Your task to perform on an android device: Go to location settings Image 0: 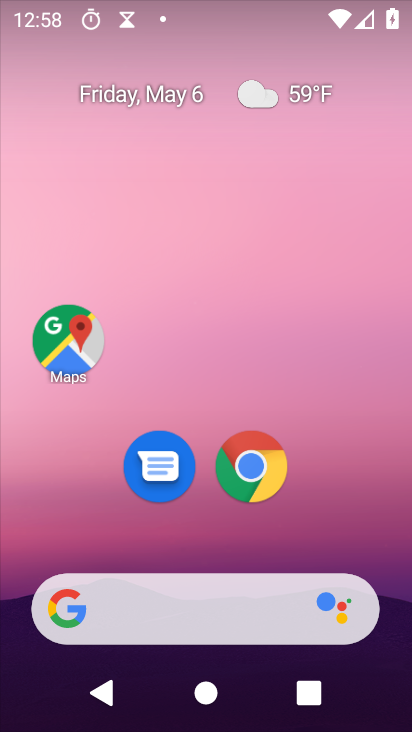
Step 0: drag from (324, 540) to (295, 276)
Your task to perform on an android device: Go to location settings Image 1: 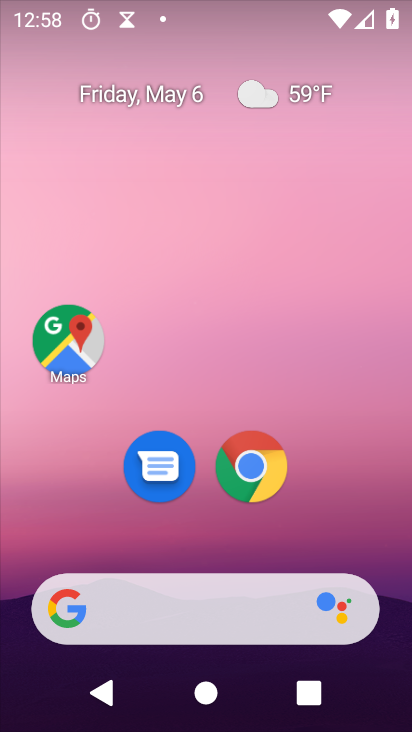
Step 1: drag from (355, 555) to (236, 81)
Your task to perform on an android device: Go to location settings Image 2: 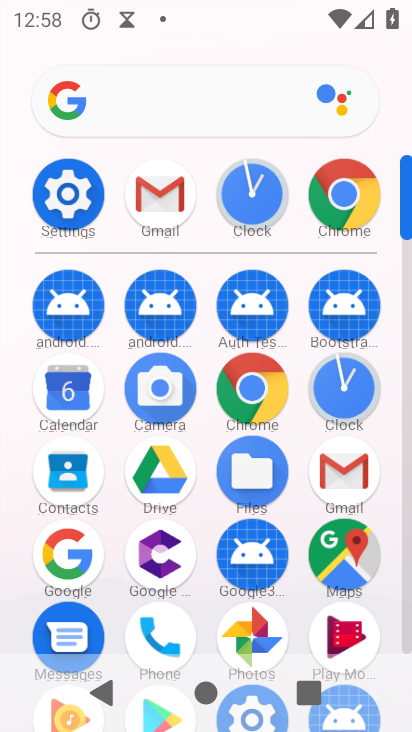
Step 2: click (65, 193)
Your task to perform on an android device: Go to location settings Image 3: 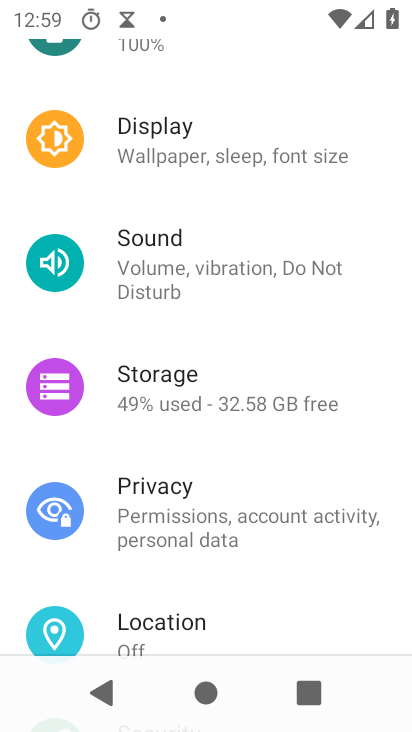
Step 3: click (178, 630)
Your task to perform on an android device: Go to location settings Image 4: 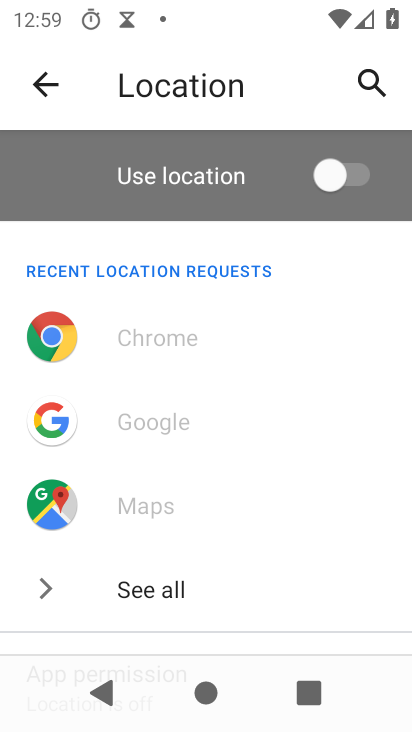
Step 4: task complete